Your task to perform on an android device: Play the last video I watched on Youtube Image 0: 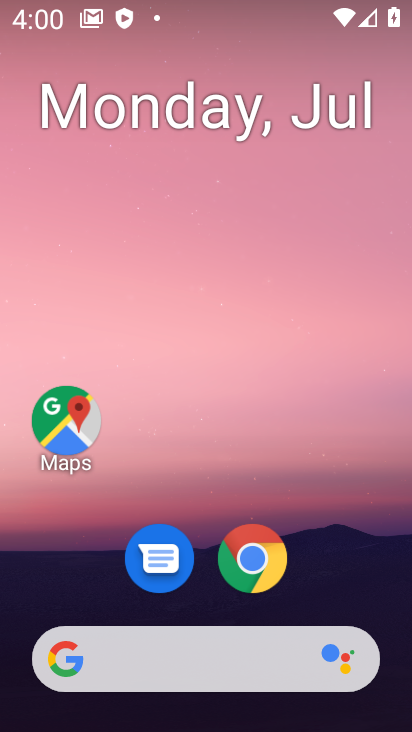
Step 0: drag from (197, 569) to (273, 3)
Your task to perform on an android device: Play the last video I watched on Youtube Image 1: 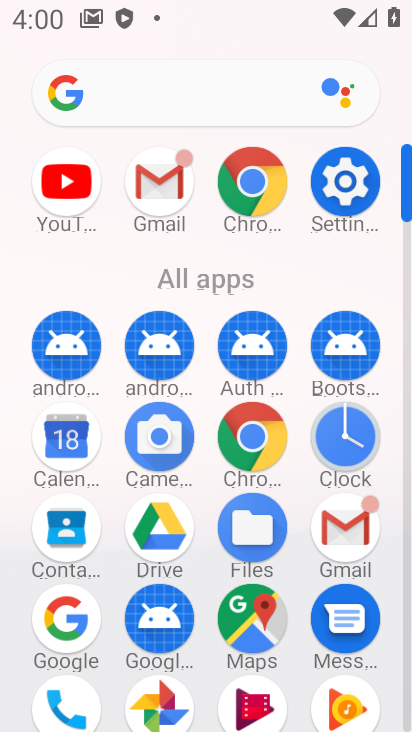
Step 1: click (60, 173)
Your task to perform on an android device: Play the last video I watched on Youtube Image 2: 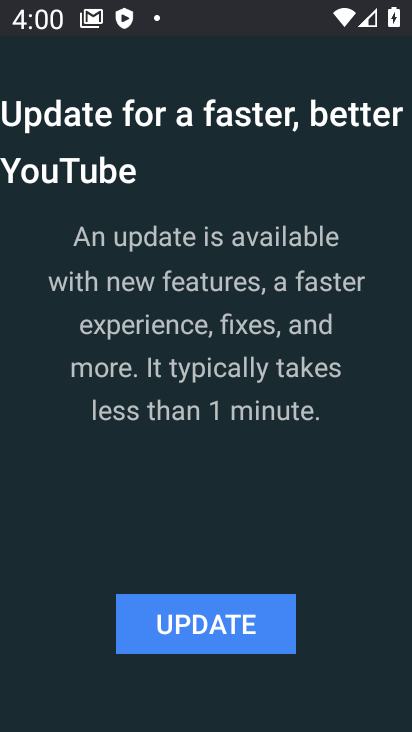
Step 2: click (227, 622)
Your task to perform on an android device: Play the last video I watched on Youtube Image 3: 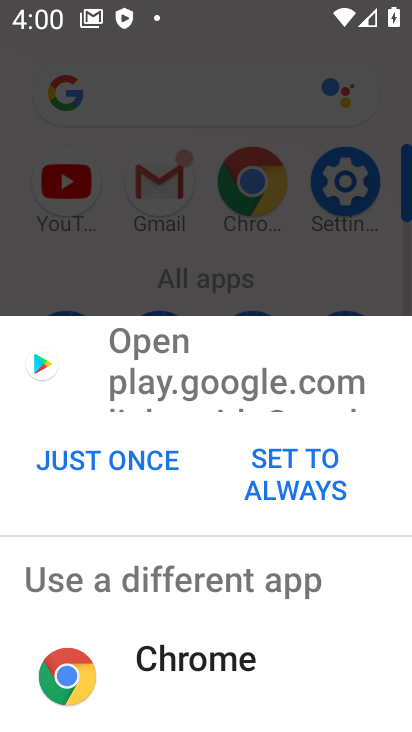
Step 3: click (101, 453)
Your task to perform on an android device: Play the last video I watched on Youtube Image 4: 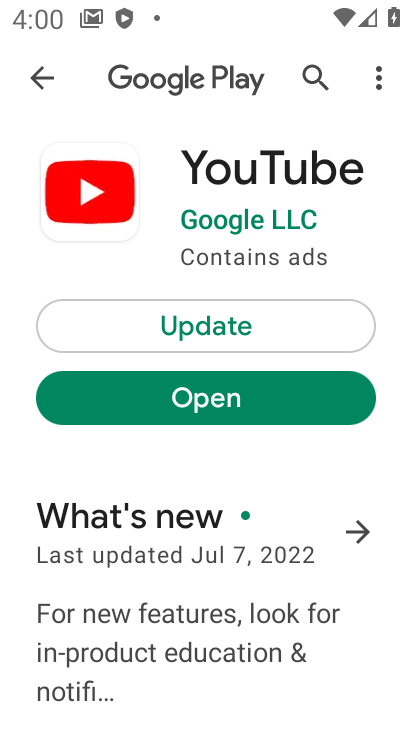
Step 4: click (206, 322)
Your task to perform on an android device: Play the last video I watched on Youtube Image 5: 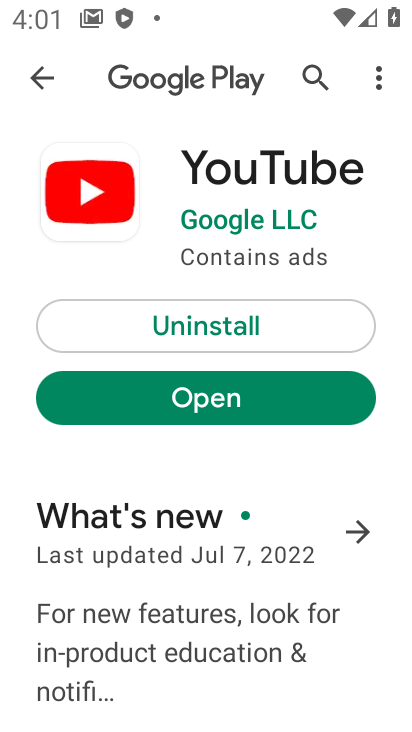
Step 5: click (200, 388)
Your task to perform on an android device: Play the last video I watched on Youtube Image 6: 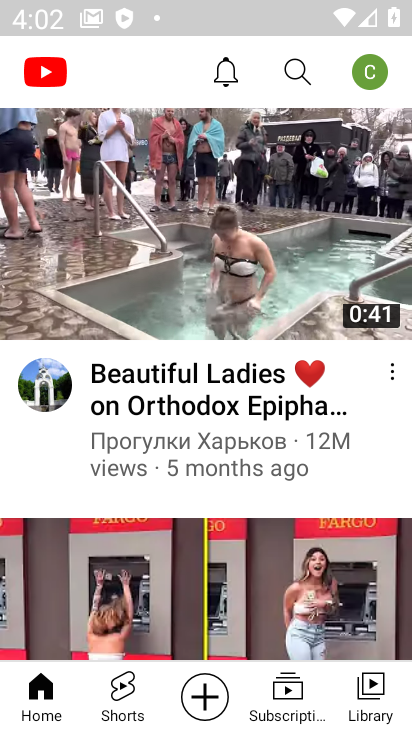
Step 6: click (370, 696)
Your task to perform on an android device: Play the last video I watched on Youtube Image 7: 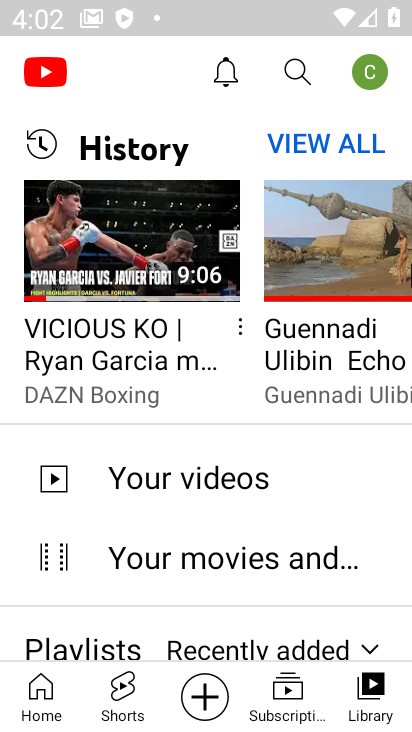
Step 7: click (139, 249)
Your task to perform on an android device: Play the last video I watched on Youtube Image 8: 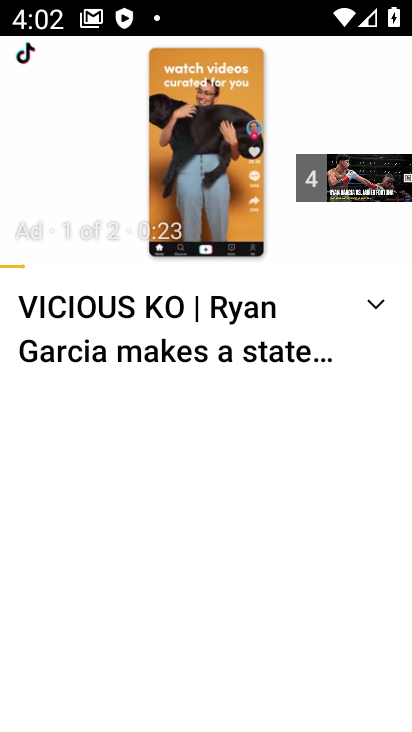
Step 8: click (183, 149)
Your task to perform on an android device: Play the last video I watched on Youtube Image 9: 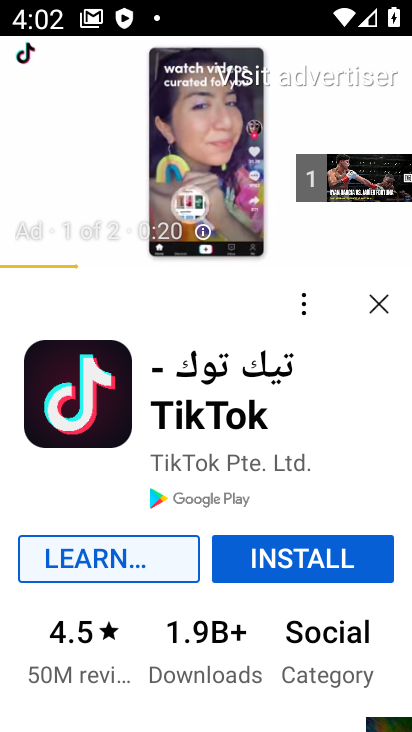
Step 9: click (210, 143)
Your task to perform on an android device: Play the last video I watched on Youtube Image 10: 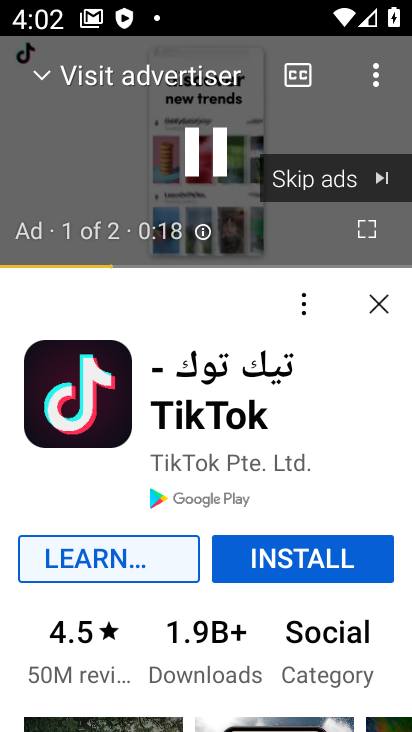
Step 10: click (218, 150)
Your task to perform on an android device: Play the last video I watched on Youtube Image 11: 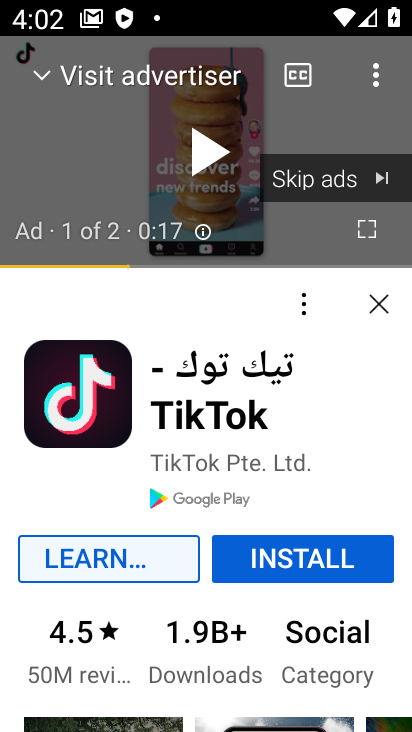
Step 11: task complete